Your task to perform on an android device: move a message to another label in the gmail app Image 0: 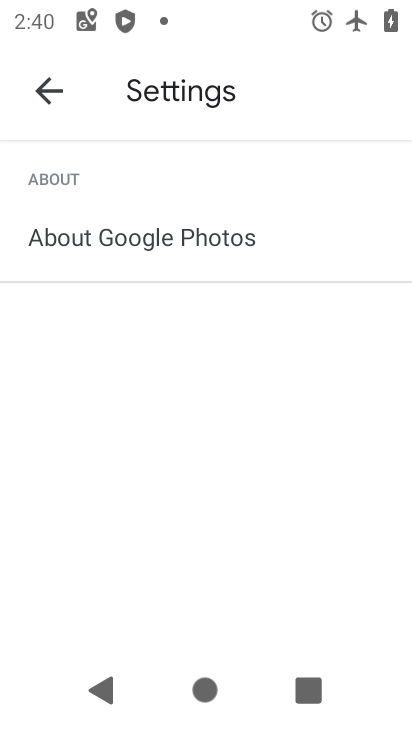
Step 0: press home button
Your task to perform on an android device: move a message to another label in the gmail app Image 1: 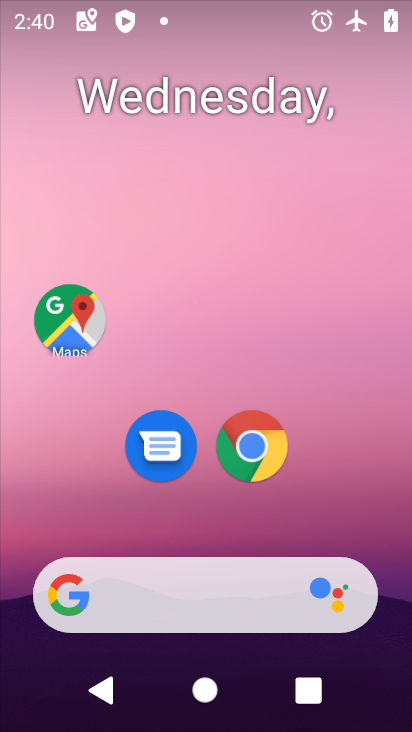
Step 1: drag from (209, 543) to (209, 197)
Your task to perform on an android device: move a message to another label in the gmail app Image 2: 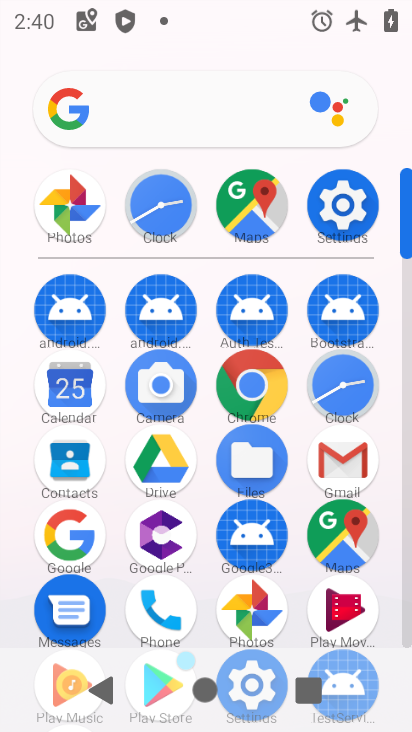
Step 2: click (333, 480)
Your task to perform on an android device: move a message to another label in the gmail app Image 3: 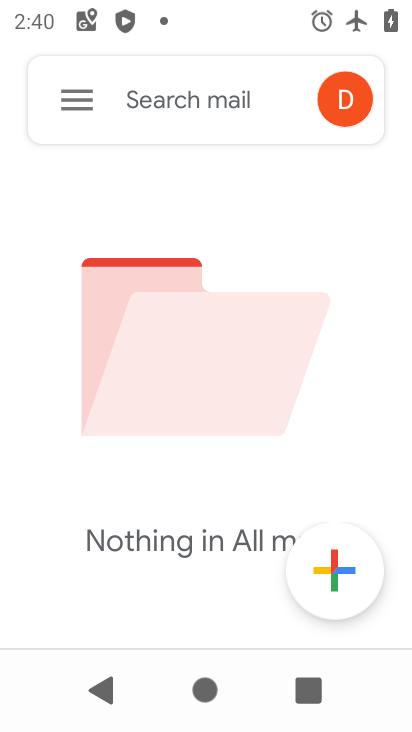
Step 3: click (78, 104)
Your task to perform on an android device: move a message to another label in the gmail app Image 4: 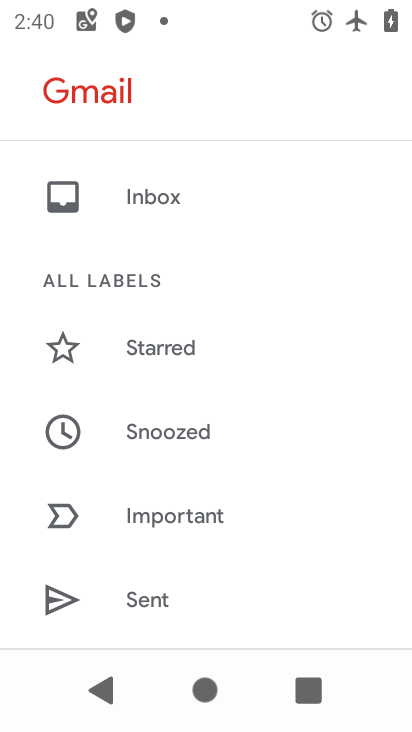
Step 4: drag from (240, 513) to (277, 230)
Your task to perform on an android device: move a message to another label in the gmail app Image 5: 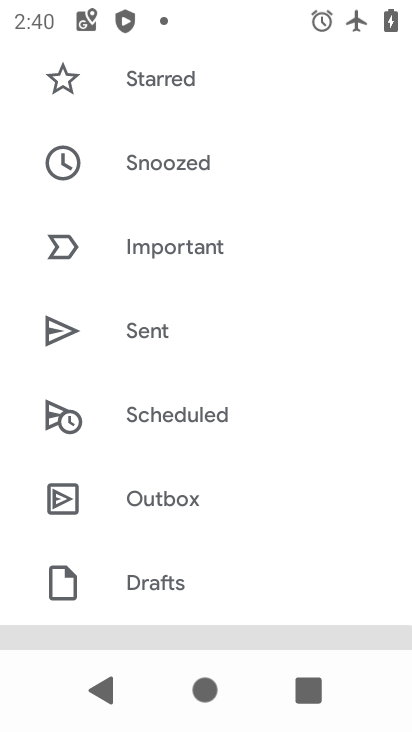
Step 5: drag from (237, 545) to (266, 262)
Your task to perform on an android device: move a message to another label in the gmail app Image 6: 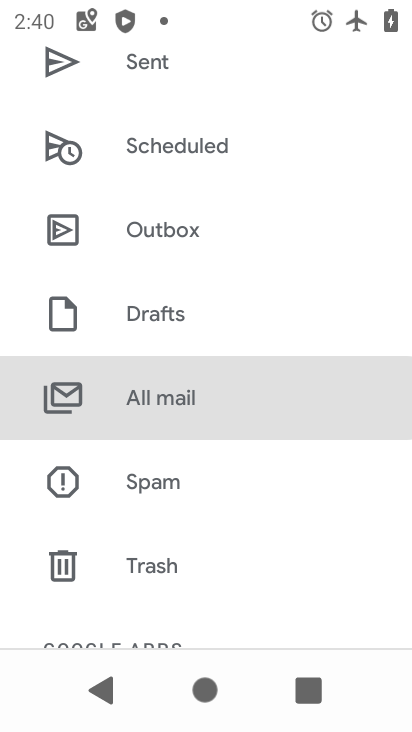
Step 6: click (217, 375)
Your task to perform on an android device: move a message to another label in the gmail app Image 7: 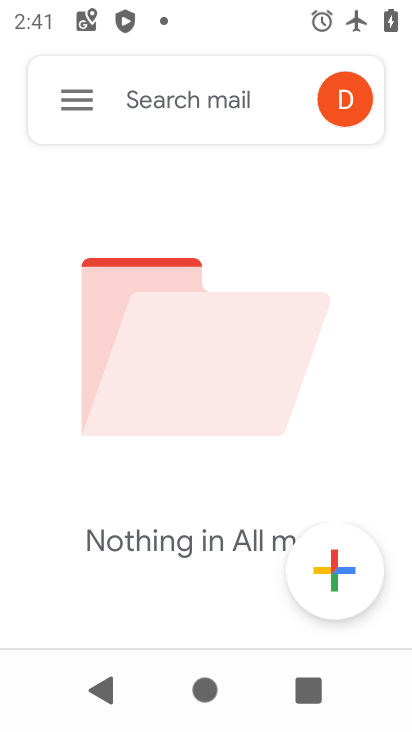
Step 7: task complete